Your task to perform on an android device: turn notification dots on Image 0: 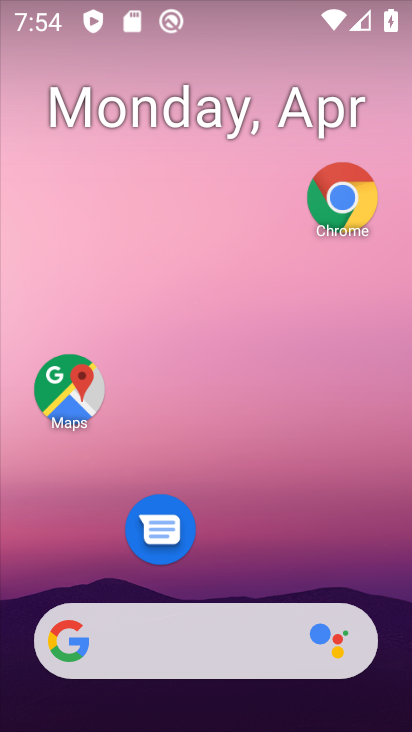
Step 0: drag from (217, 492) to (279, 41)
Your task to perform on an android device: turn notification dots on Image 1: 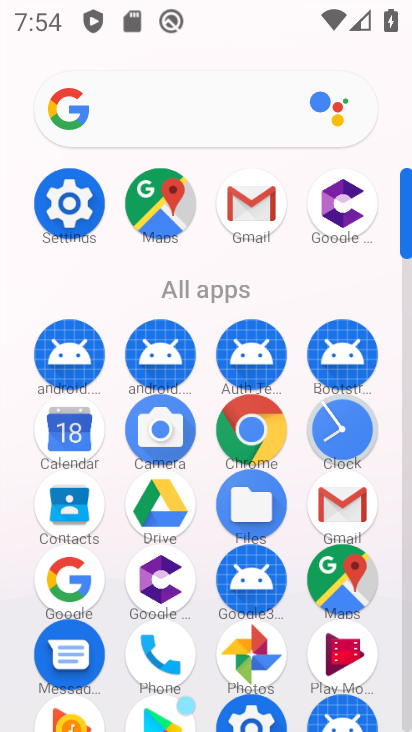
Step 1: click (75, 200)
Your task to perform on an android device: turn notification dots on Image 2: 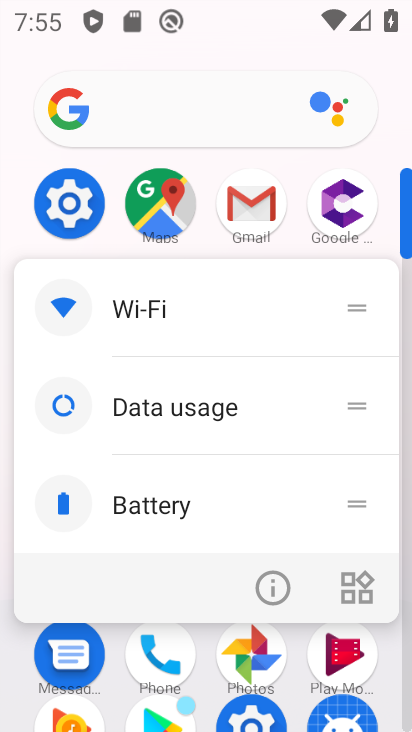
Step 2: click (66, 197)
Your task to perform on an android device: turn notification dots on Image 3: 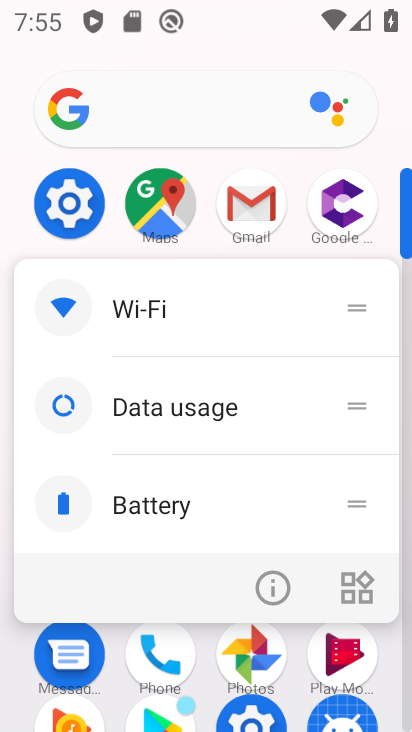
Step 3: click (56, 208)
Your task to perform on an android device: turn notification dots on Image 4: 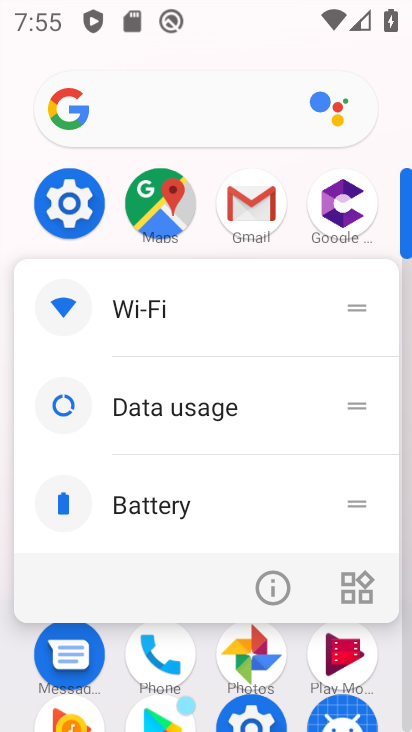
Step 4: click (56, 208)
Your task to perform on an android device: turn notification dots on Image 5: 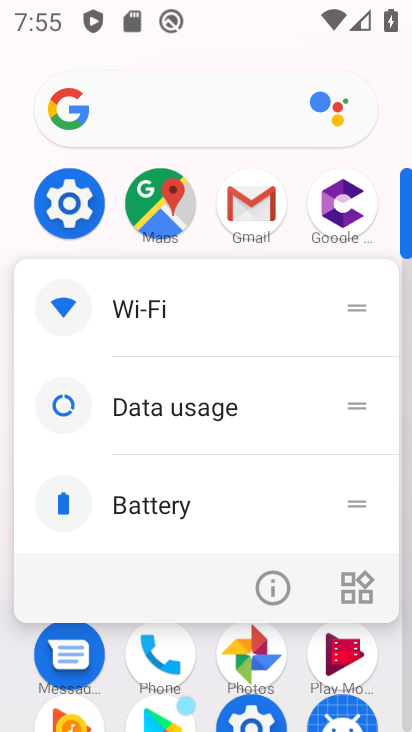
Step 5: click (84, 192)
Your task to perform on an android device: turn notification dots on Image 6: 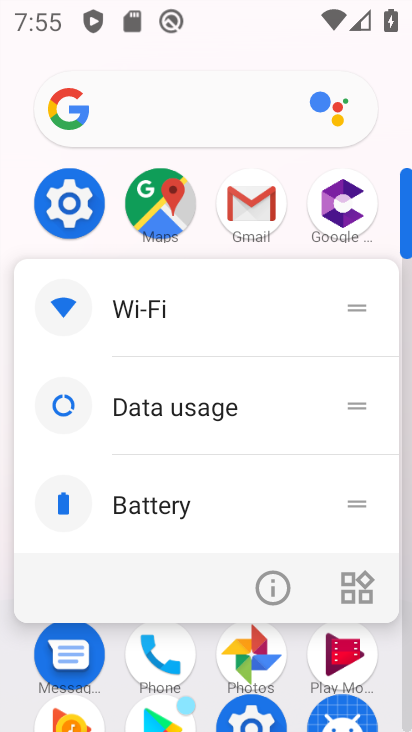
Step 6: click (78, 221)
Your task to perform on an android device: turn notification dots on Image 7: 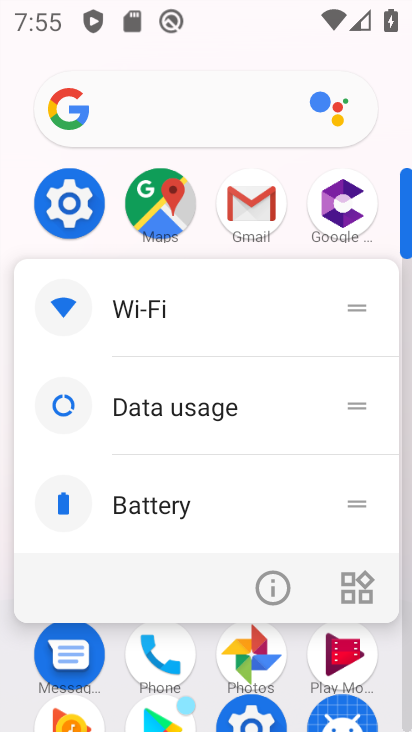
Step 7: click (81, 209)
Your task to perform on an android device: turn notification dots on Image 8: 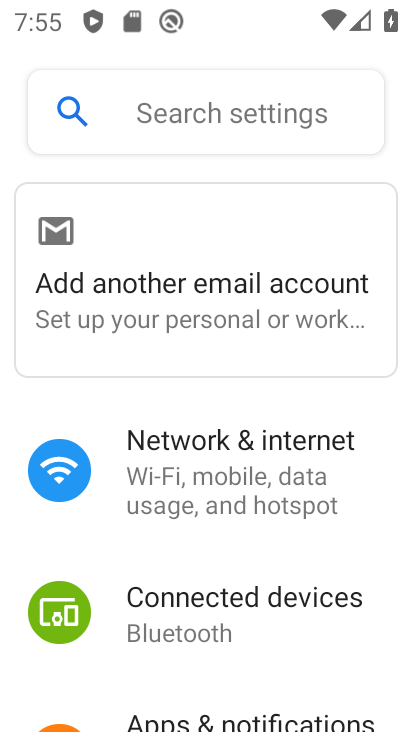
Step 8: drag from (211, 622) to (279, 252)
Your task to perform on an android device: turn notification dots on Image 9: 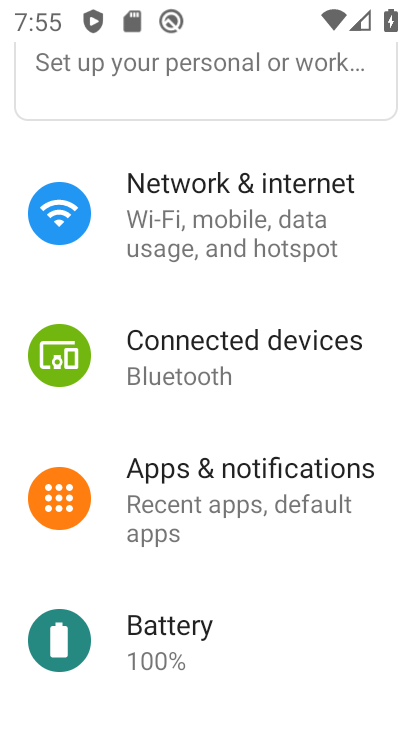
Step 9: click (260, 485)
Your task to perform on an android device: turn notification dots on Image 10: 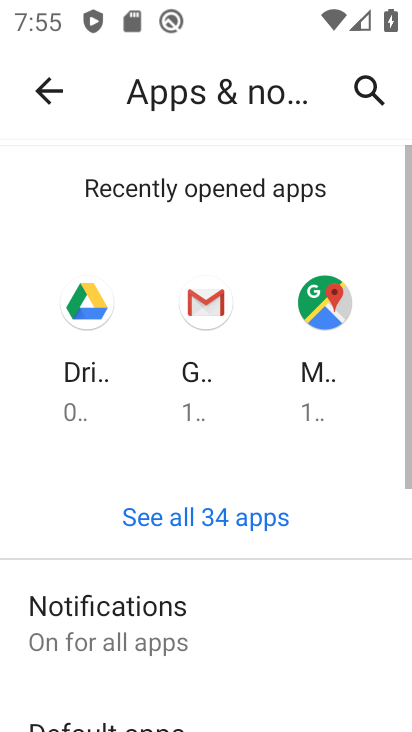
Step 10: click (174, 619)
Your task to perform on an android device: turn notification dots on Image 11: 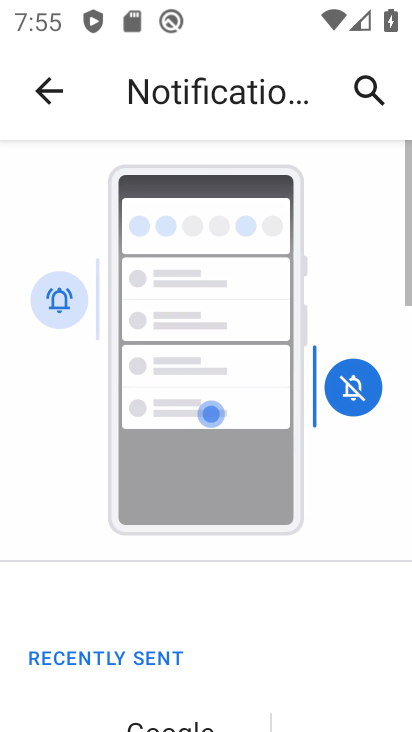
Step 11: drag from (218, 498) to (251, 162)
Your task to perform on an android device: turn notification dots on Image 12: 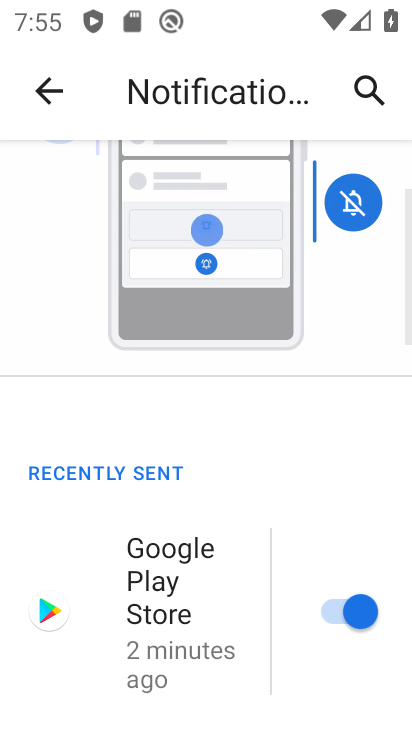
Step 12: drag from (163, 590) to (283, 106)
Your task to perform on an android device: turn notification dots on Image 13: 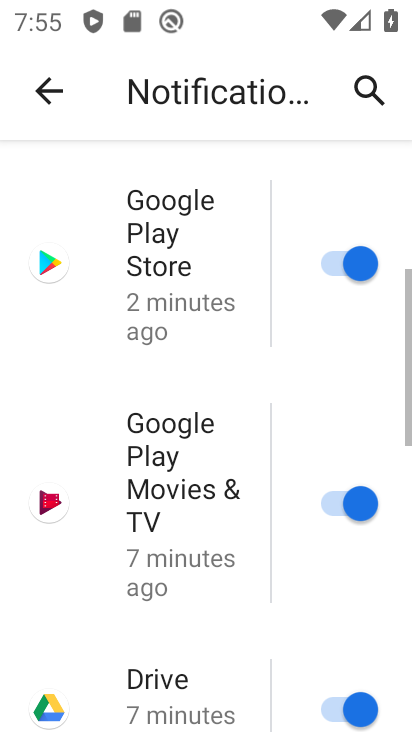
Step 13: drag from (176, 494) to (245, 67)
Your task to perform on an android device: turn notification dots on Image 14: 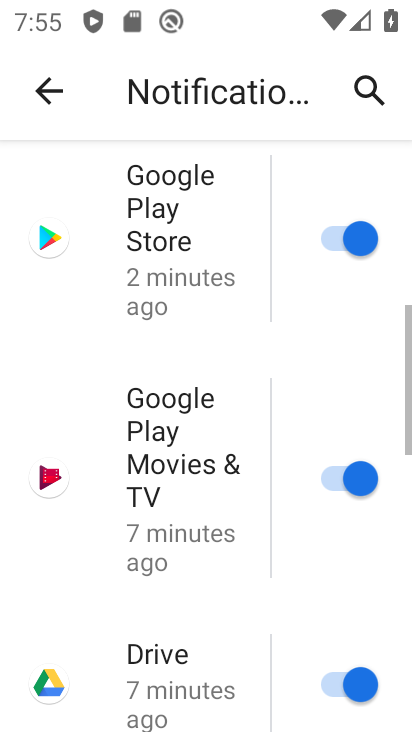
Step 14: drag from (243, 444) to (355, 56)
Your task to perform on an android device: turn notification dots on Image 15: 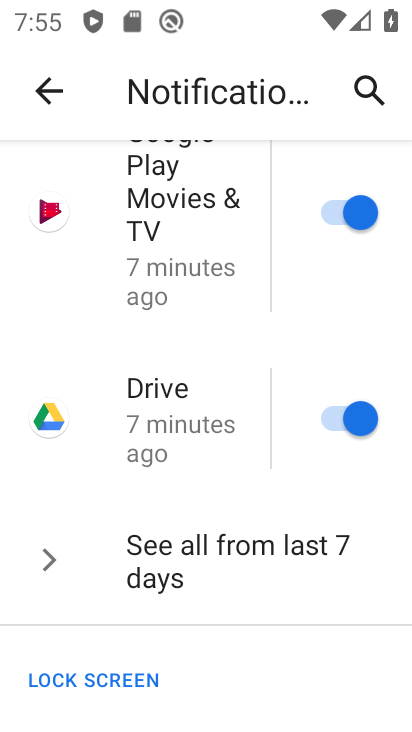
Step 15: drag from (190, 605) to (294, 72)
Your task to perform on an android device: turn notification dots on Image 16: 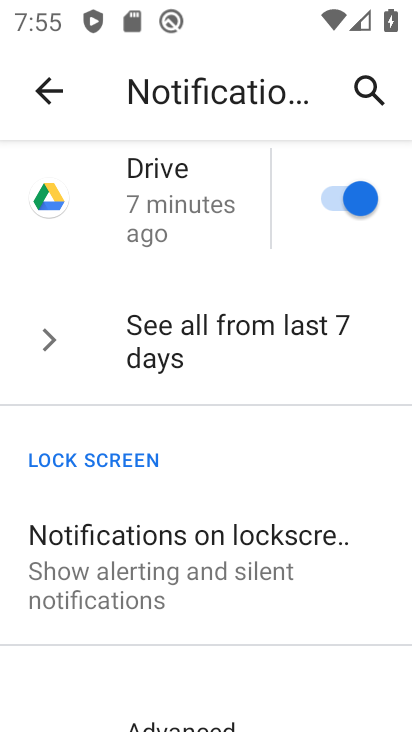
Step 16: drag from (179, 608) to (266, 75)
Your task to perform on an android device: turn notification dots on Image 17: 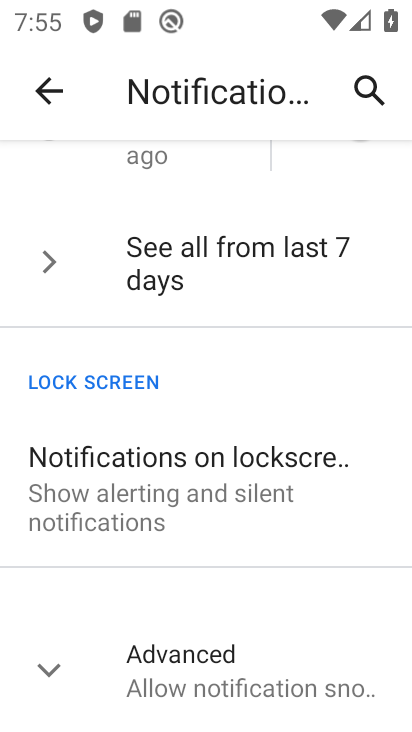
Step 17: click (178, 685)
Your task to perform on an android device: turn notification dots on Image 18: 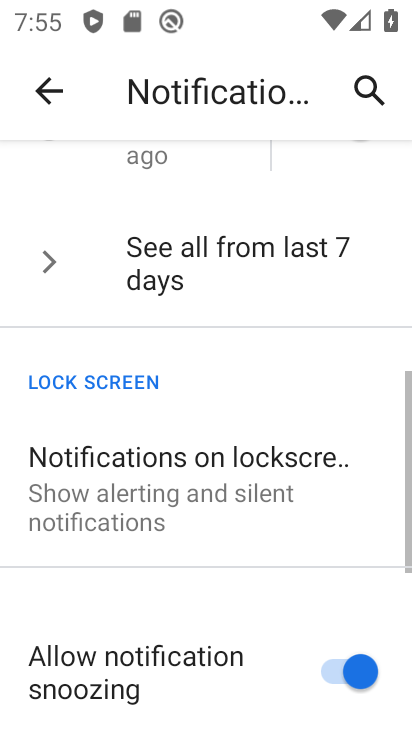
Step 18: task complete